Your task to perform on an android device: Open maps Image 0: 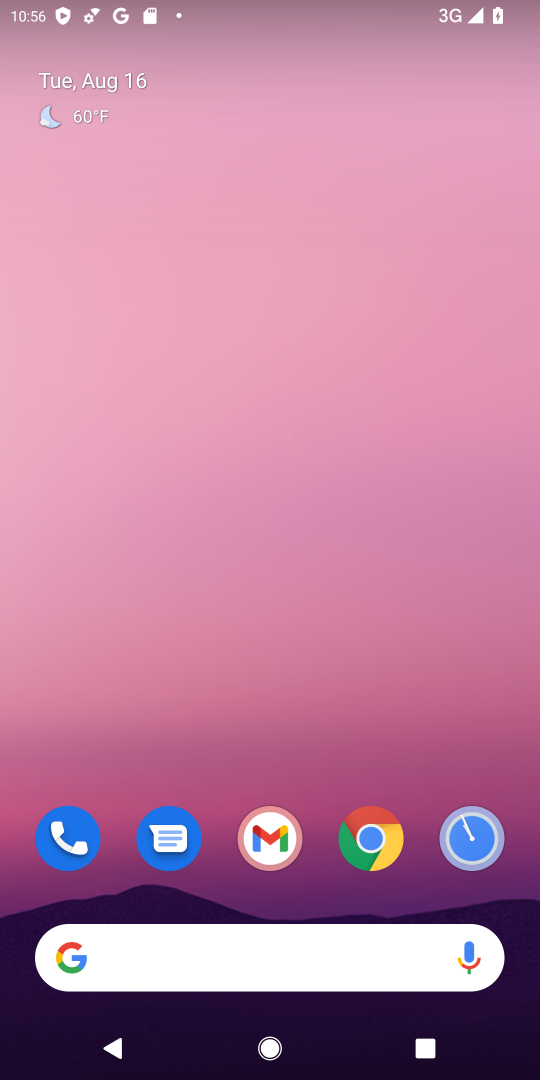
Step 0: press home button
Your task to perform on an android device: Open maps Image 1: 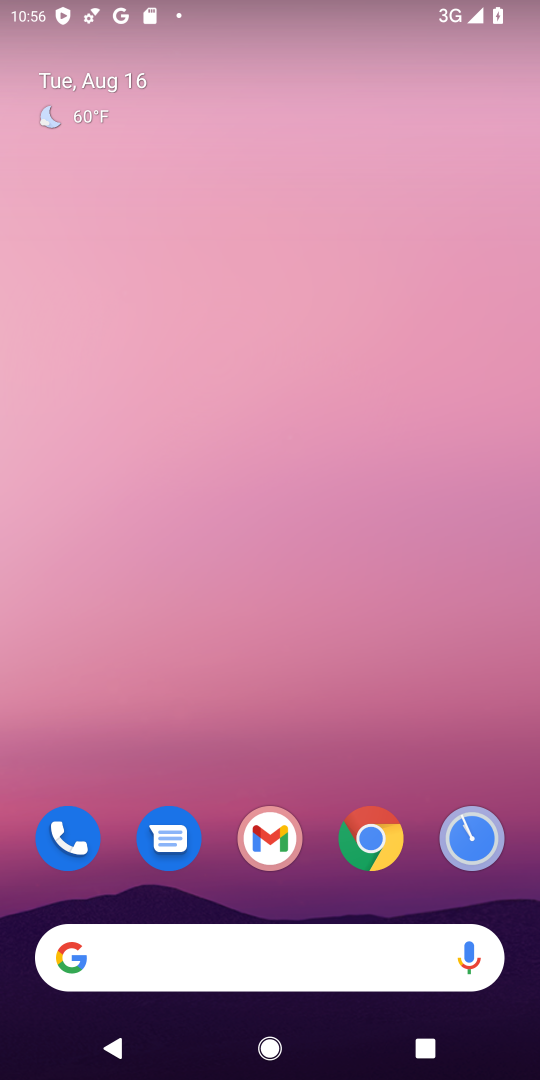
Step 1: drag from (320, 873) to (355, 0)
Your task to perform on an android device: Open maps Image 2: 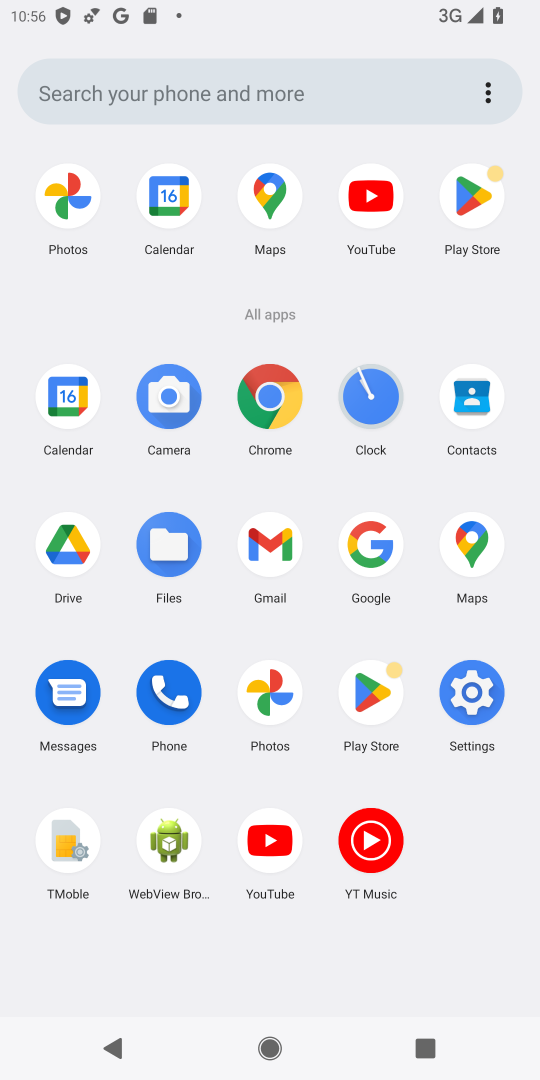
Step 2: click (475, 536)
Your task to perform on an android device: Open maps Image 3: 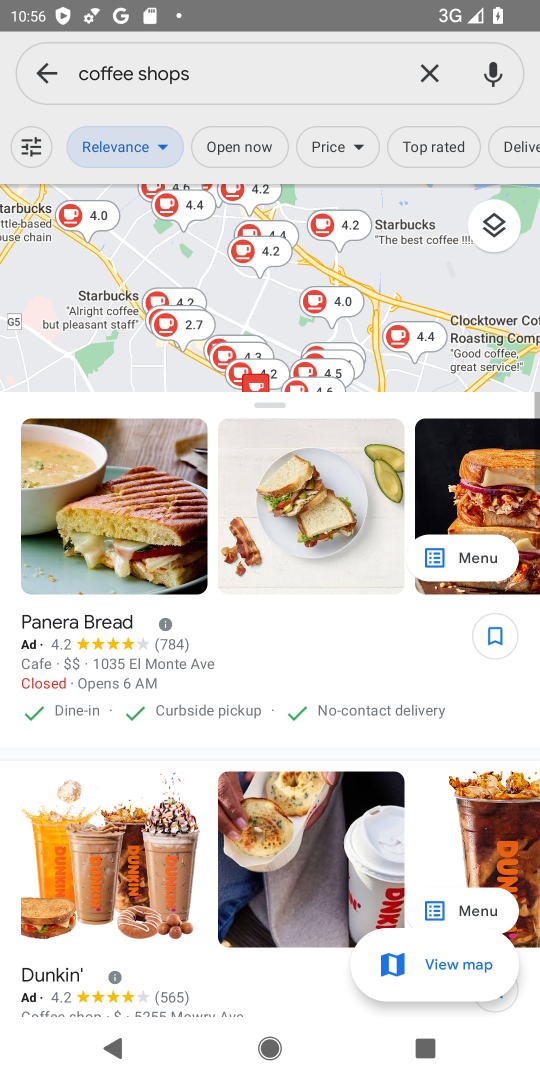
Step 3: task complete